Your task to perform on an android device: Open the web browser Image 0: 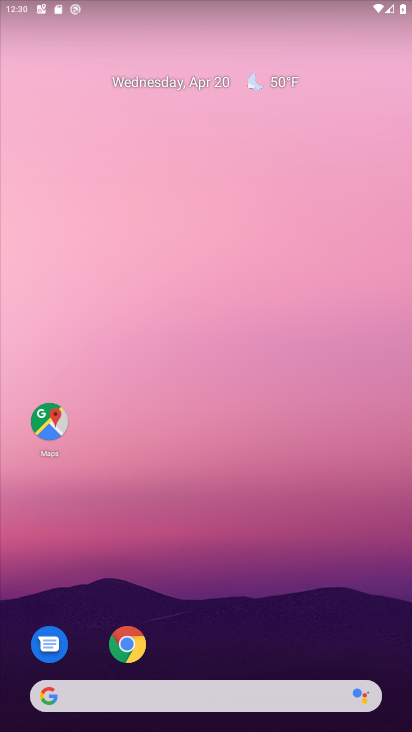
Step 0: click (48, 421)
Your task to perform on an android device: Open the web browser Image 1: 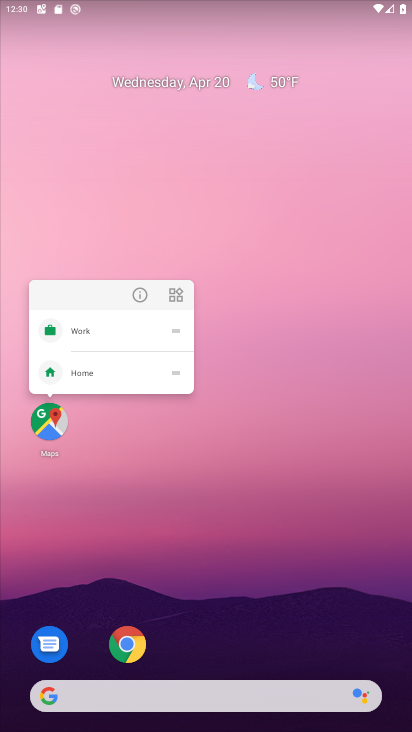
Step 1: click (41, 411)
Your task to perform on an android device: Open the web browser Image 2: 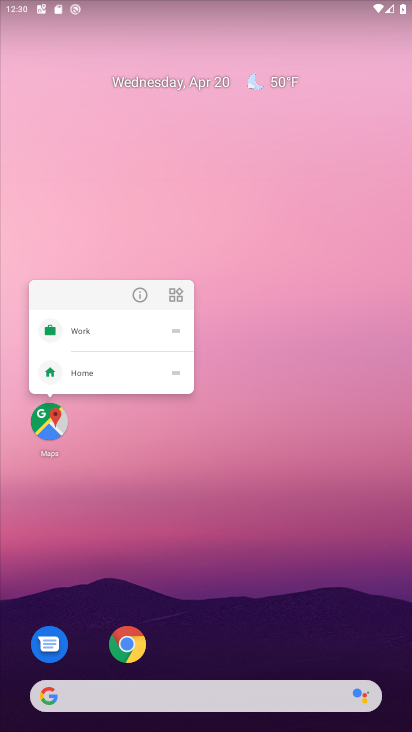
Step 2: click (51, 433)
Your task to perform on an android device: Open the web browser Image 3: 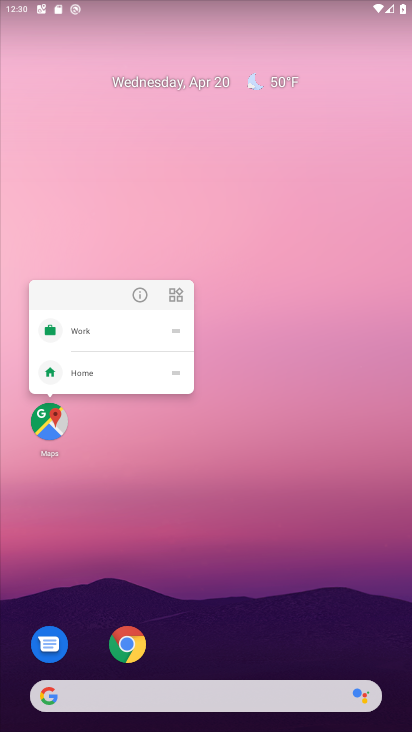
Step 3: click (38, 422)
Your task to perform on an android device: Open the web browser Image 4: 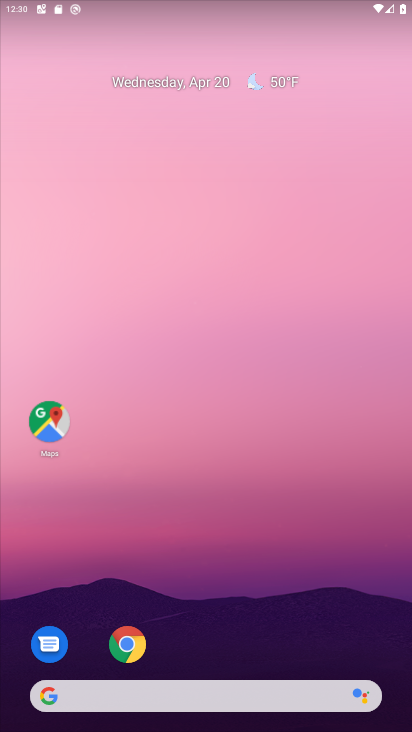
Step 4: click (54, 423)
Your task to perform on an android device: Open the web browser Image 5: 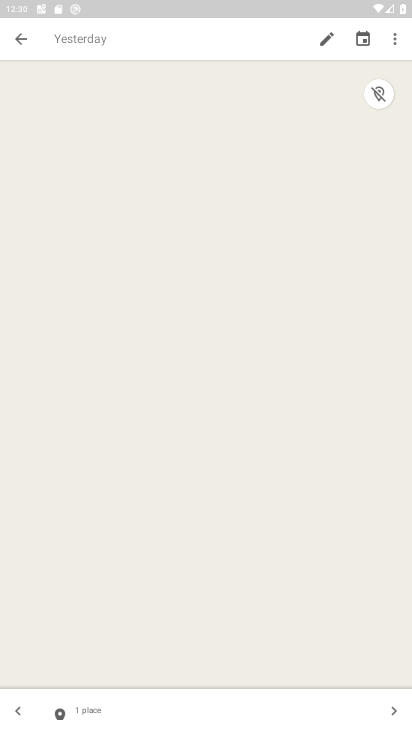
Step 5: click (173, 40)
Your task to perform on an android device: Open the web browser Image 6: 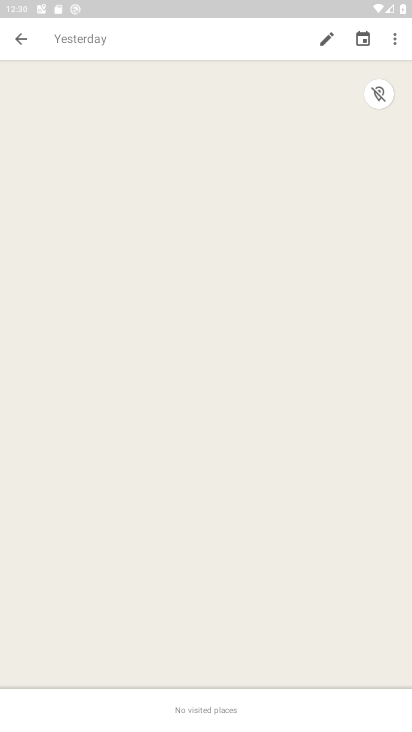
Step 6: click (18, 33)
Your task to perform on an android device: Open the web browser Image 7: 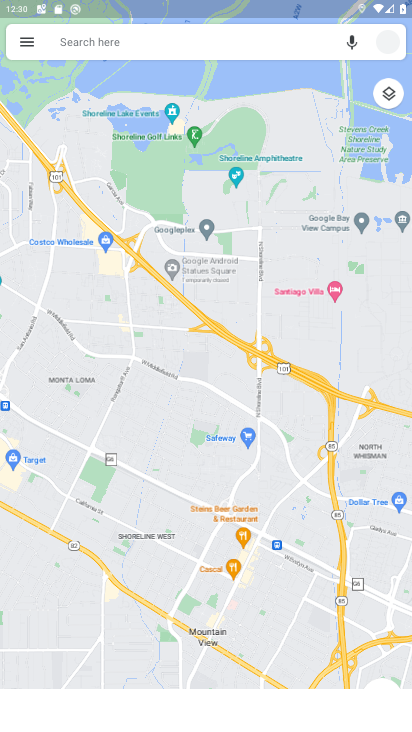
Step 7: click (78, 46)
Your task to perform on an android device: Open the web browser Image 8: 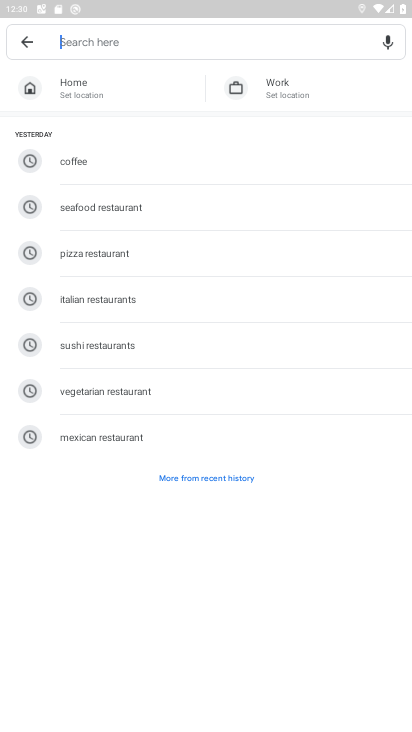
Step 8: press home button
Your task to perform on an android device: Open the web browser Image 9: 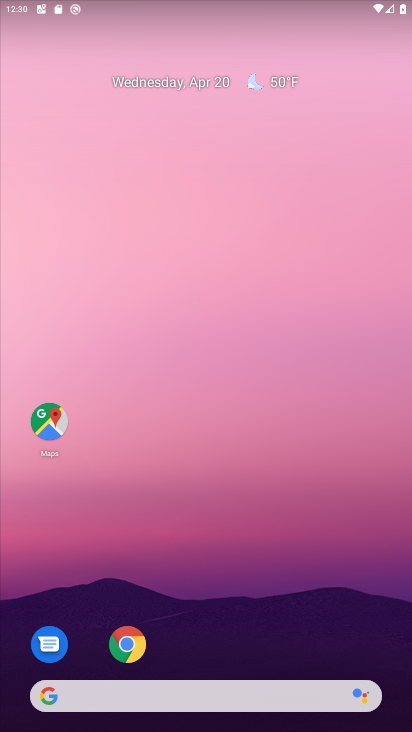
Step 9: click (134, 645)
Your task to perform on an android device: Open the web browser Image 10: 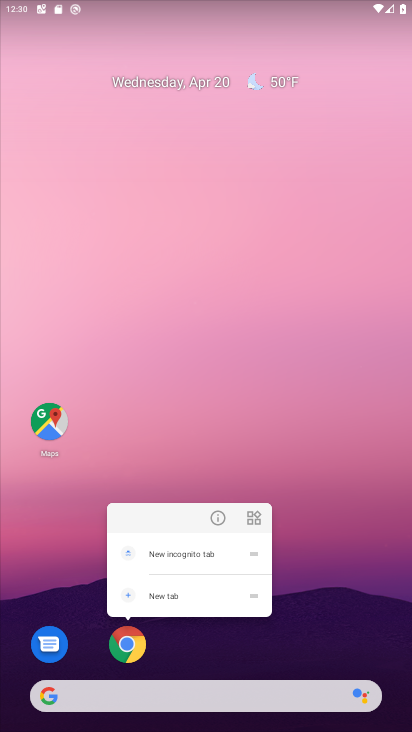
Step 10: click (128, 648)
Your task to perform on an android device: Open the web browser Image 11: 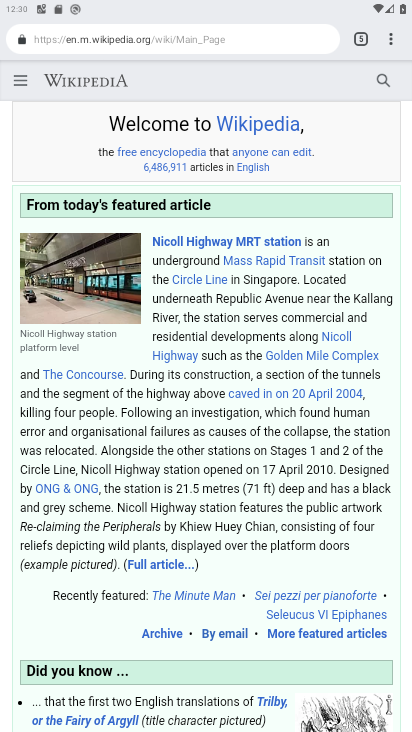
Step 11: task complete